Your task to perform on an android device: When is my next appointment? Image 0: 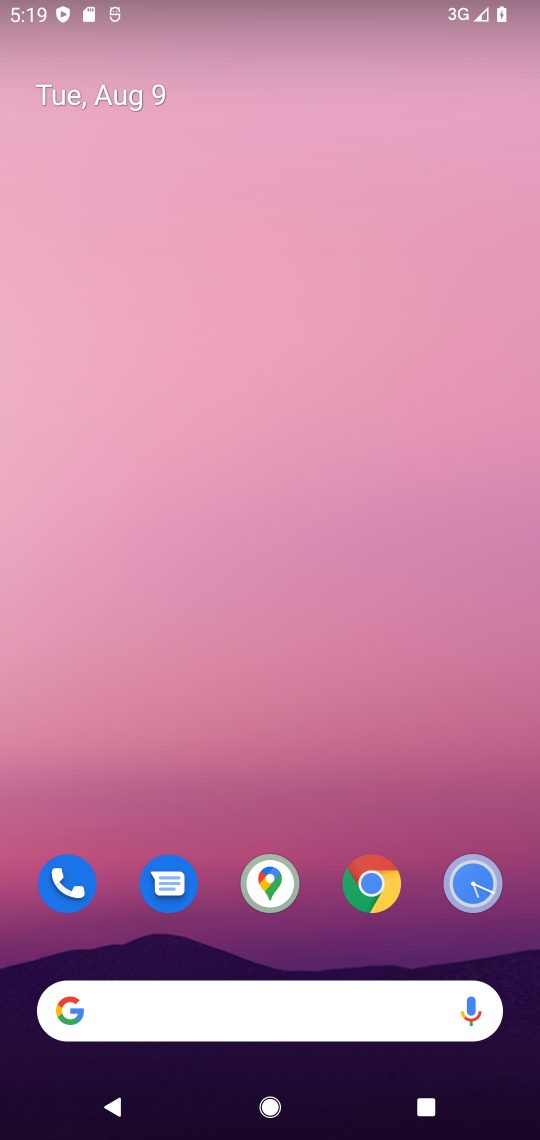
Step 0: drag from (280, 512) to (265, 73)
Your task to perform on an android device: When is my next appointment? Image 1: 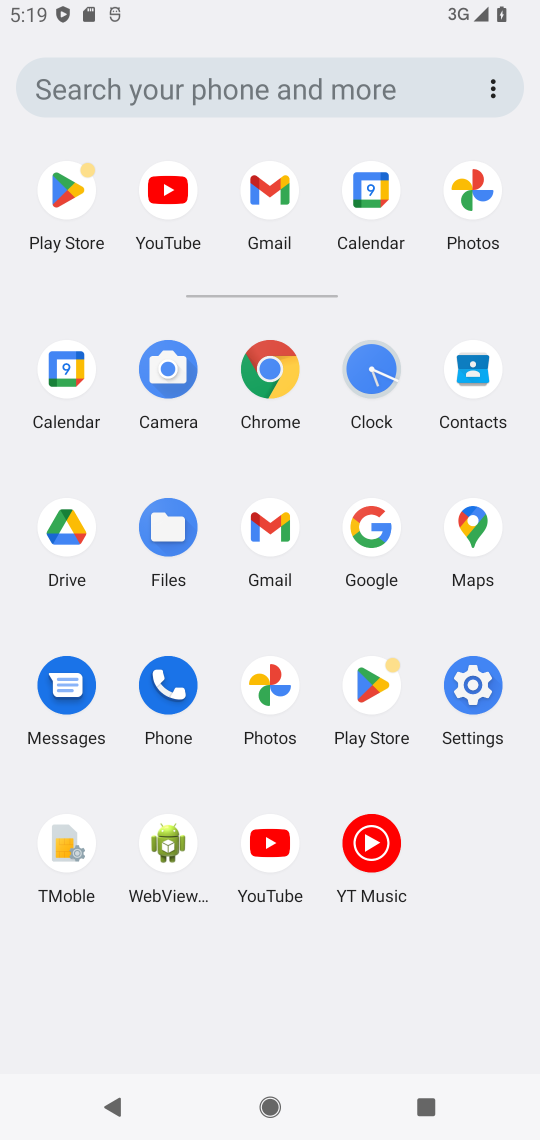
Step 1: click (65, 389)
Your task to perform on an android device: When is my next appointment? Image 2: 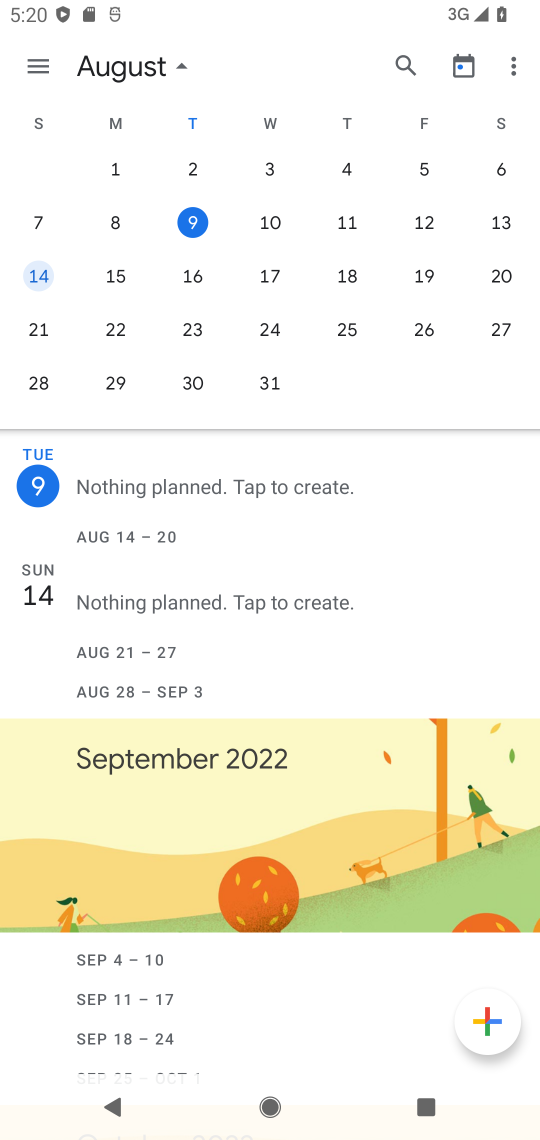
Step 2: click (263, 245)
Your task to perform on an android device: When is my next appointment? Image 3: 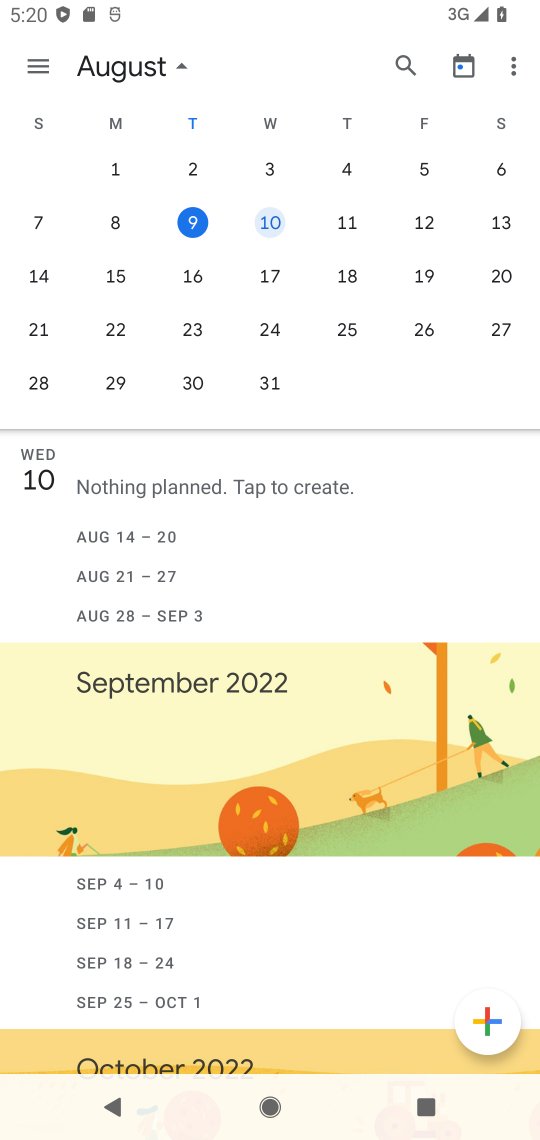
Step 3: click (357, 246)
Your task to perform on an android device: When is my next appointment? Image 4: 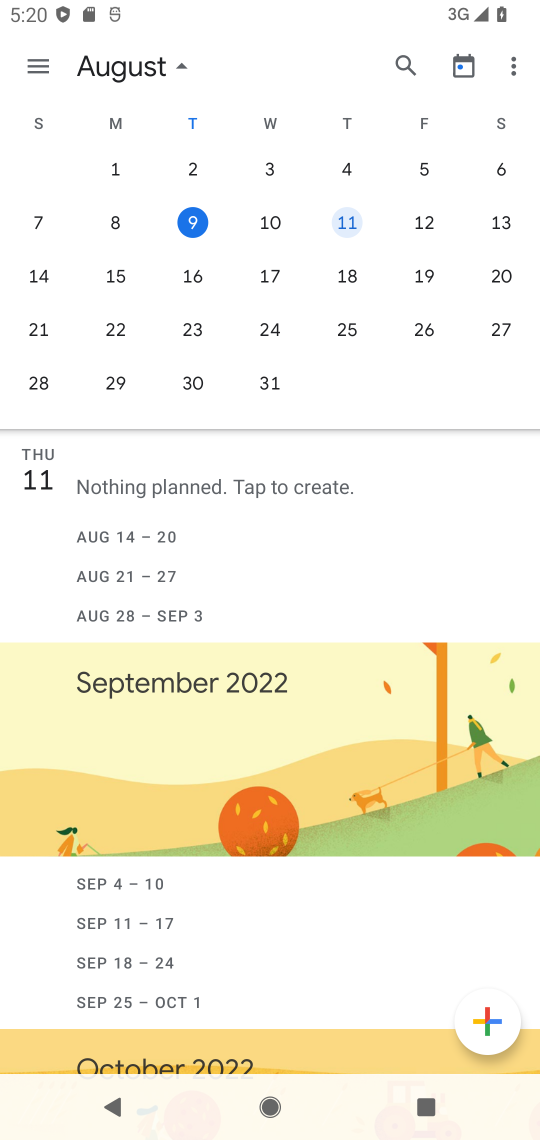
Step 4: click (402, 234)
Your task to perform on an android device: When is my next appointment? Image 5: 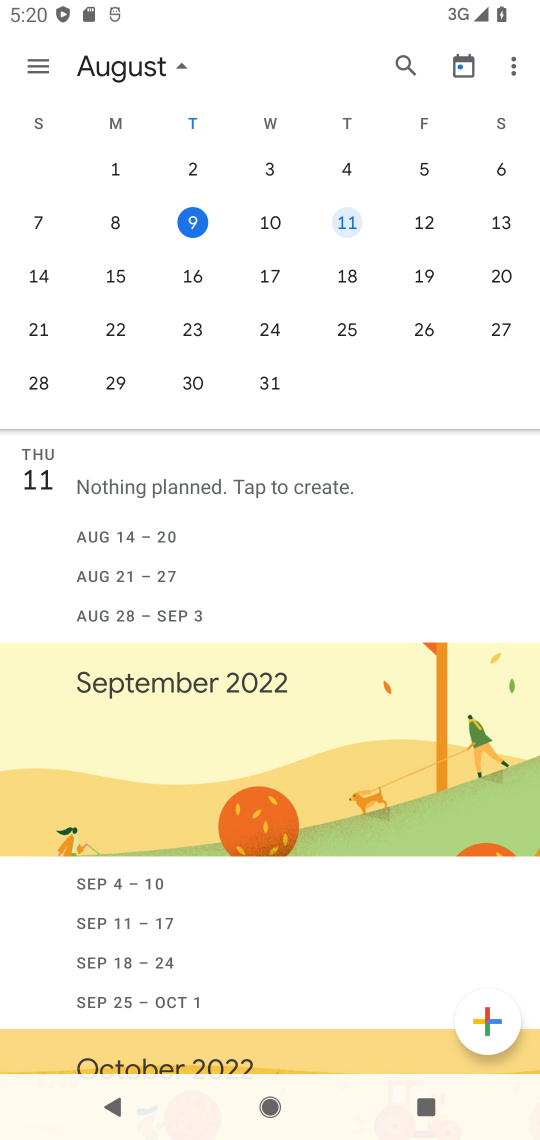
Step 5: click (435, 234)
Your task to perform on an android device: When is my next appointment? Image 6: 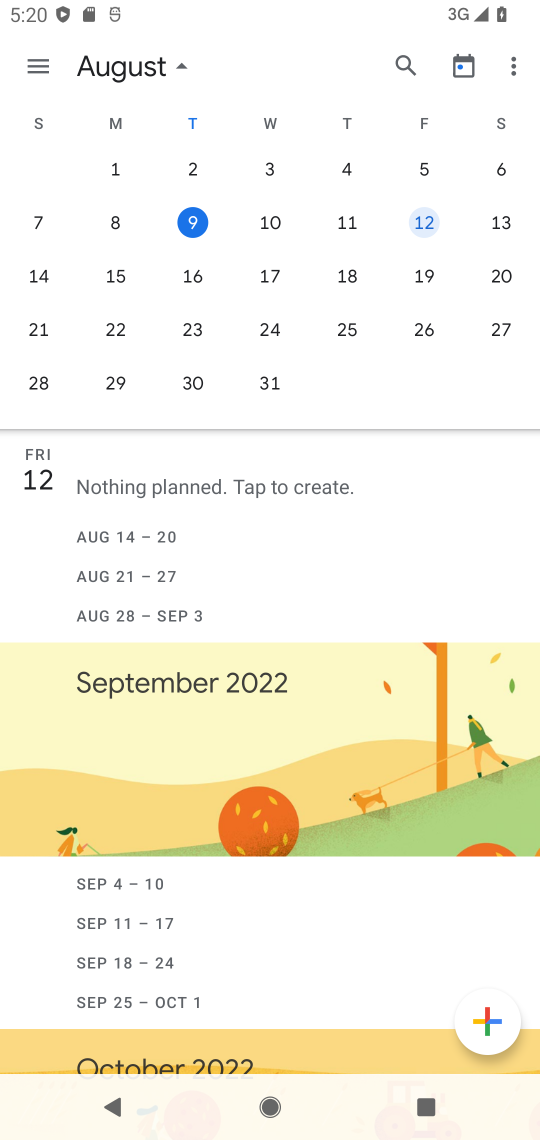
Step 6: click (489, 218)
Your task to perform on an android device: When is my next appointment? Image 7: 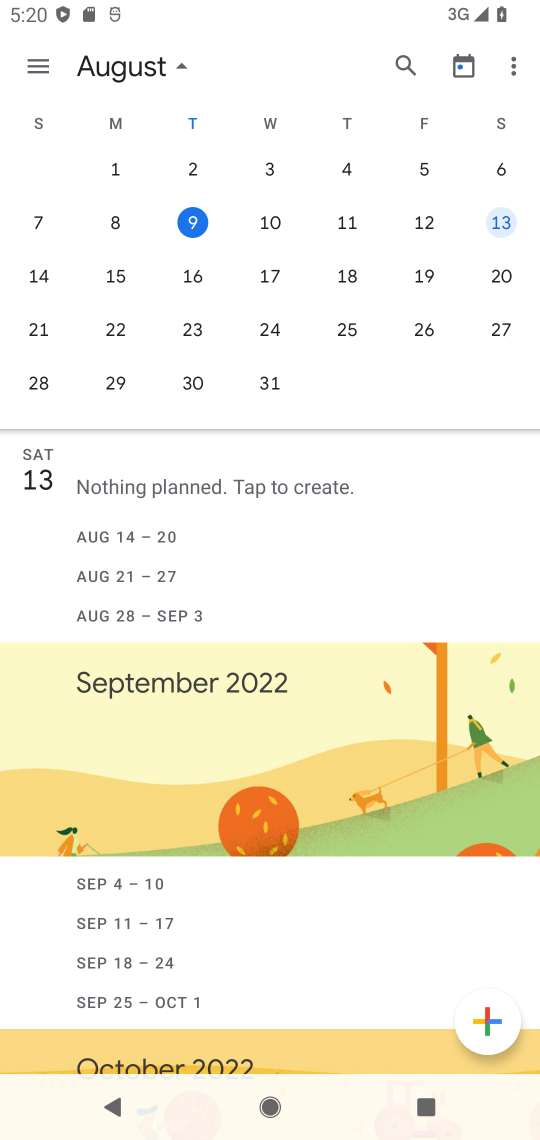
Step 7: click (47, 285)
Your task to perform on an android device: When is my next appointment? Image 8: 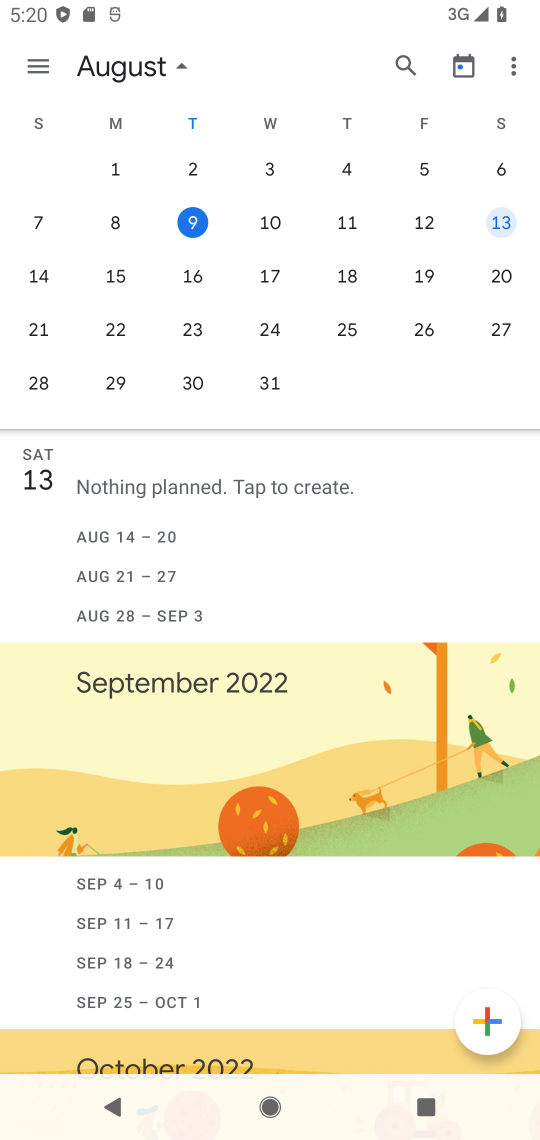
Step 8: click (147, 264)
Your task to perform on an android device: When is my next appointment? Image 9: 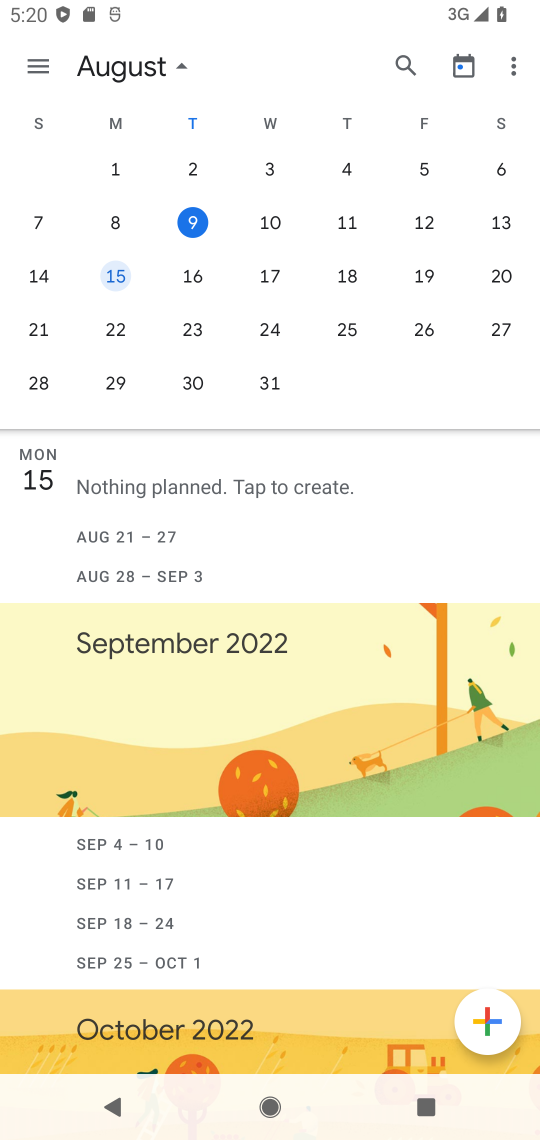
Step 9: click (210, 267)
Your task to perform on an android device: When is my next appointment? Image 10: 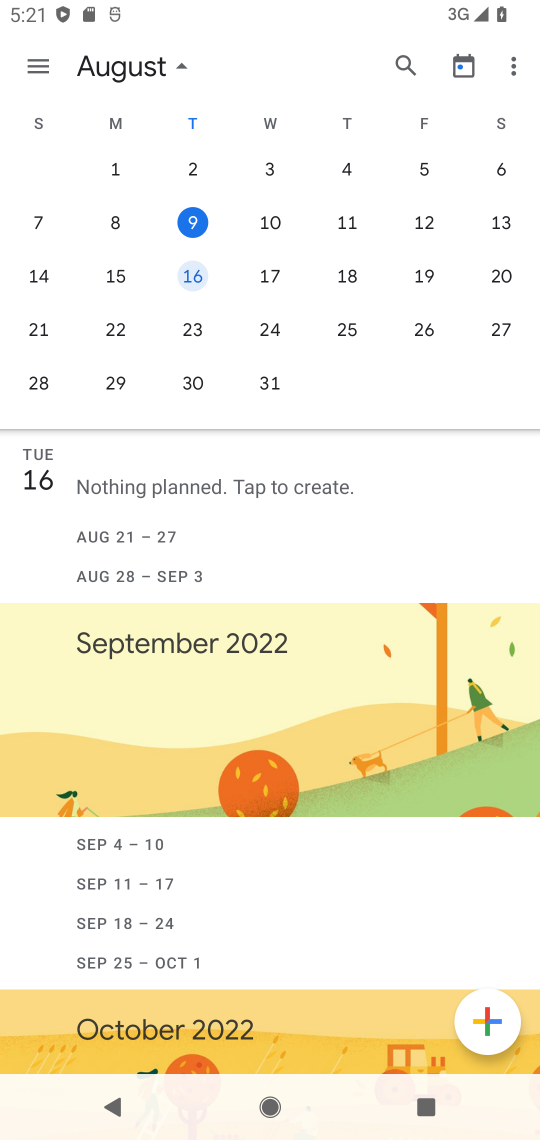
Step 10: click (247, 231)
Your task to perform on an android device: When is my next appointment? Image 11: 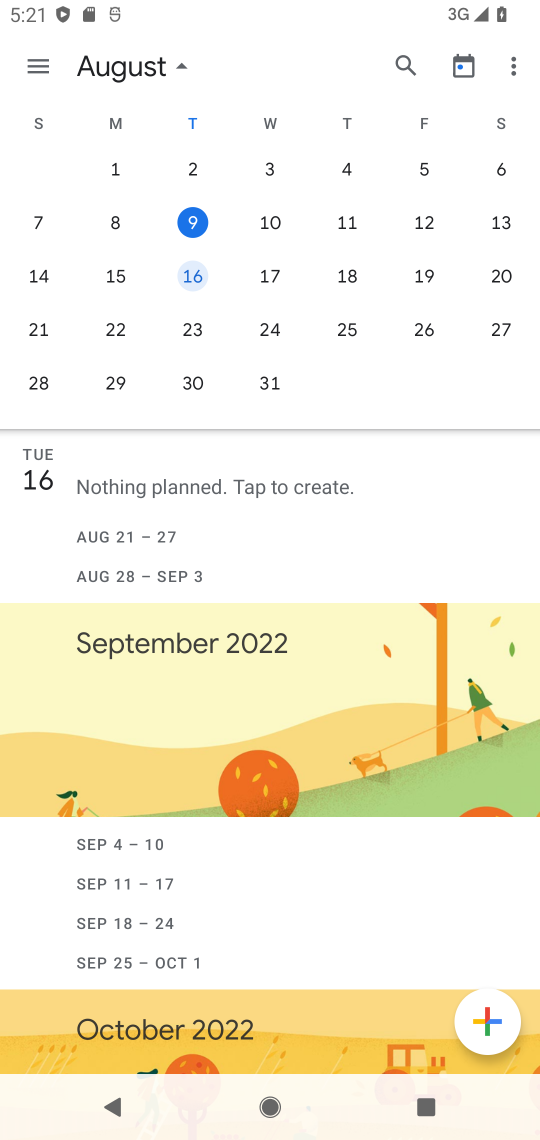
Step 11: click (269, 231)
Your task to perform on an android device: When is my next appointment? Image 12: 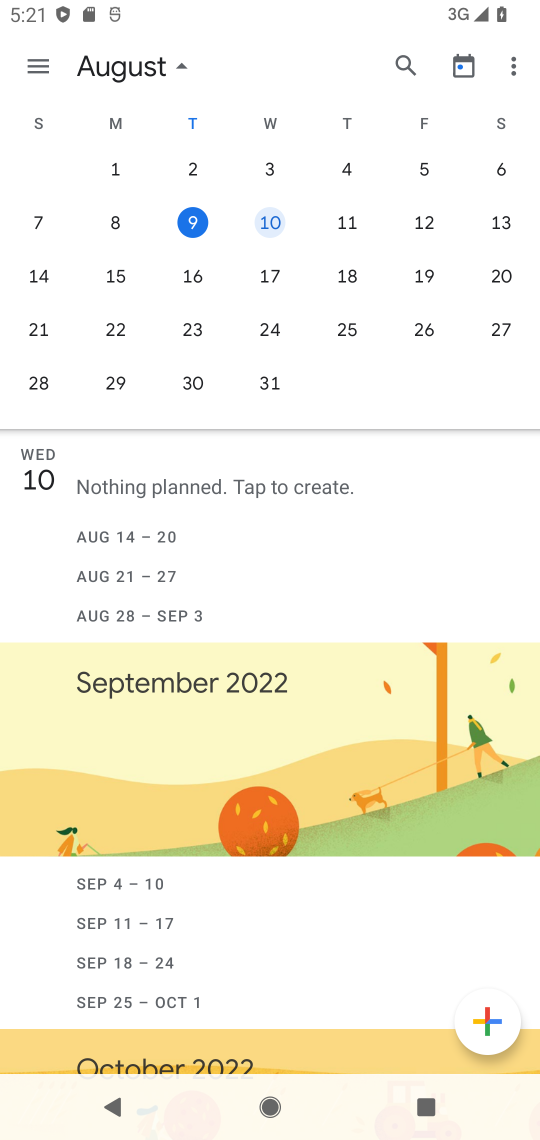
Step 12: task complete